Your task to perform on an android device: set default search engine in the chrome app Image 0: 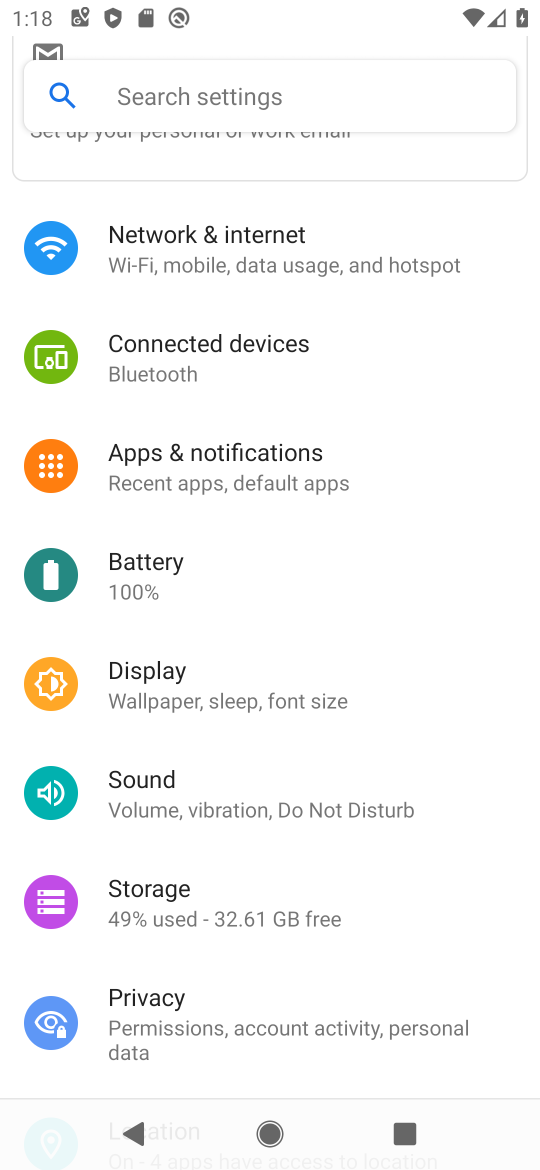
Step 0: press home button
Your task to perform on an android device: set default search engine in the chrome app Image 1: 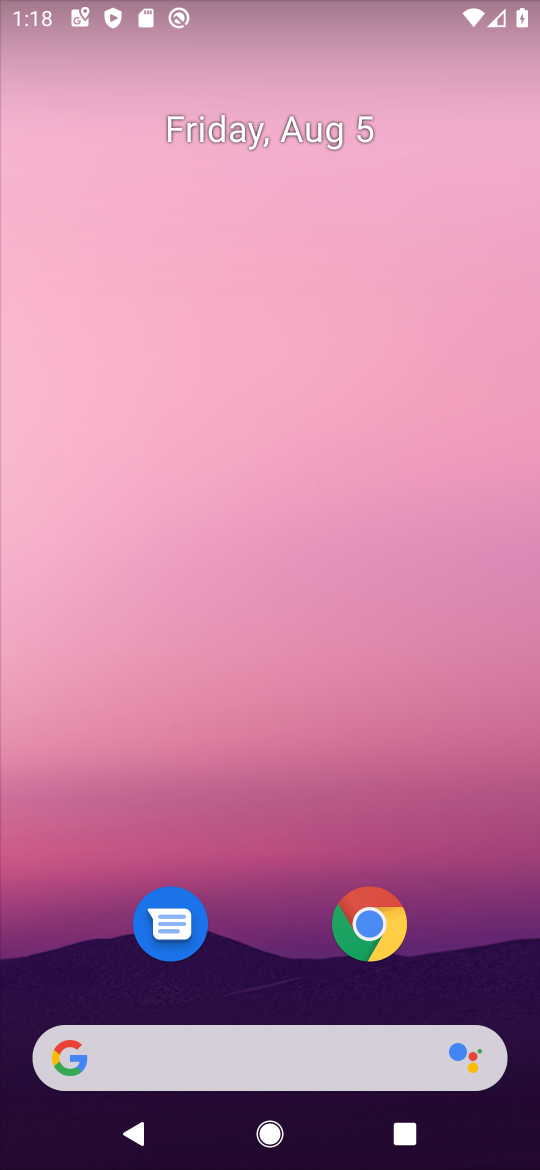
Step 1: click (373, 922)
Your task to perform on an android device: set default search engine in the chrome app Image 2: 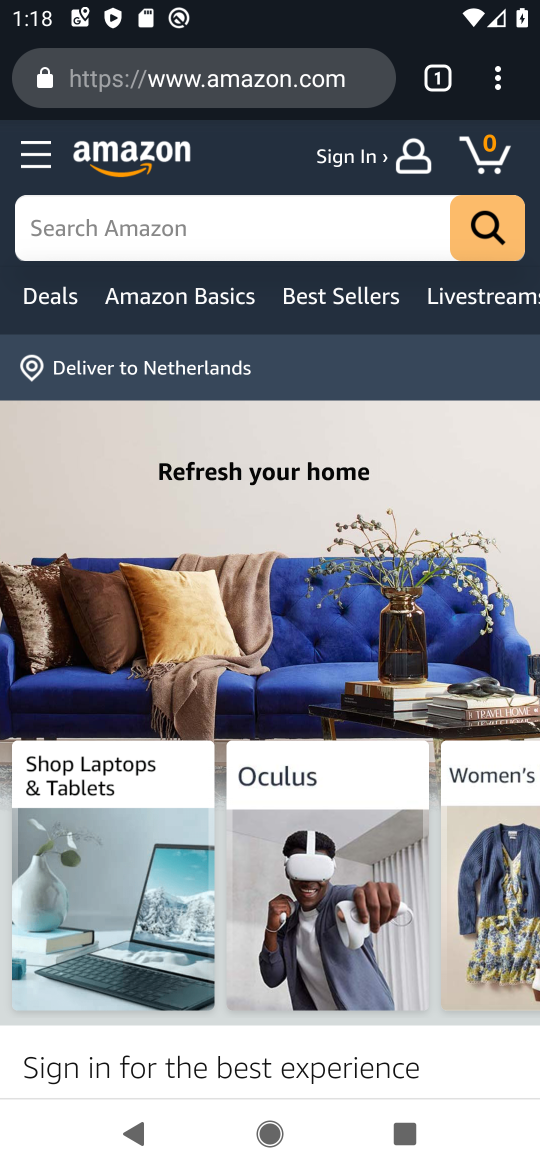
Step 2: click (507, 83)
Your task to perform on an android device: set default search engine in the chrome app Image 3: 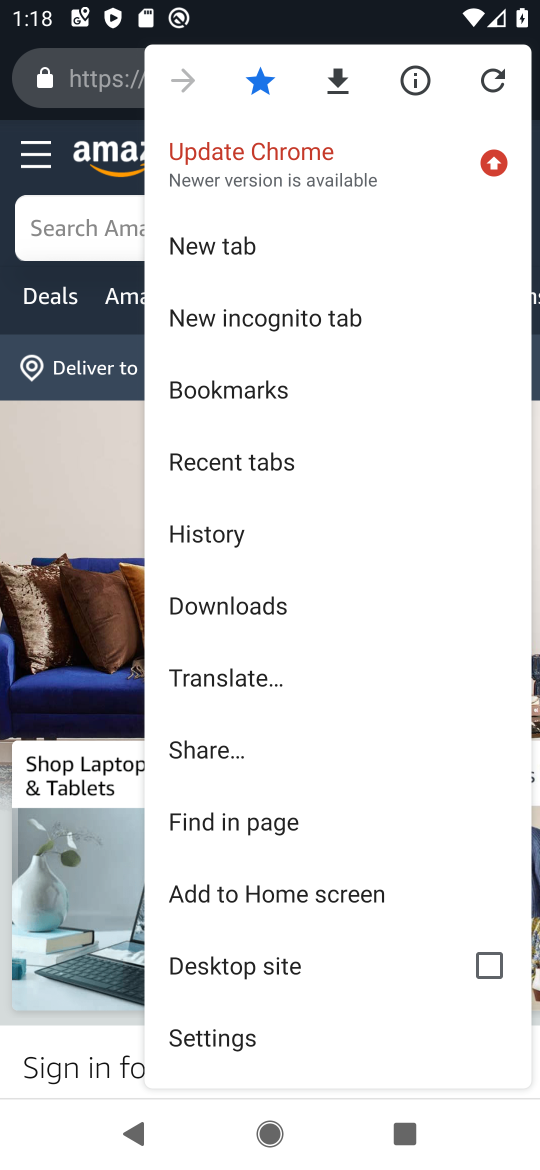
Step 3: click (229, 1045)
Your task to perform on an android device: set default search engine in the chrome app Image 4: 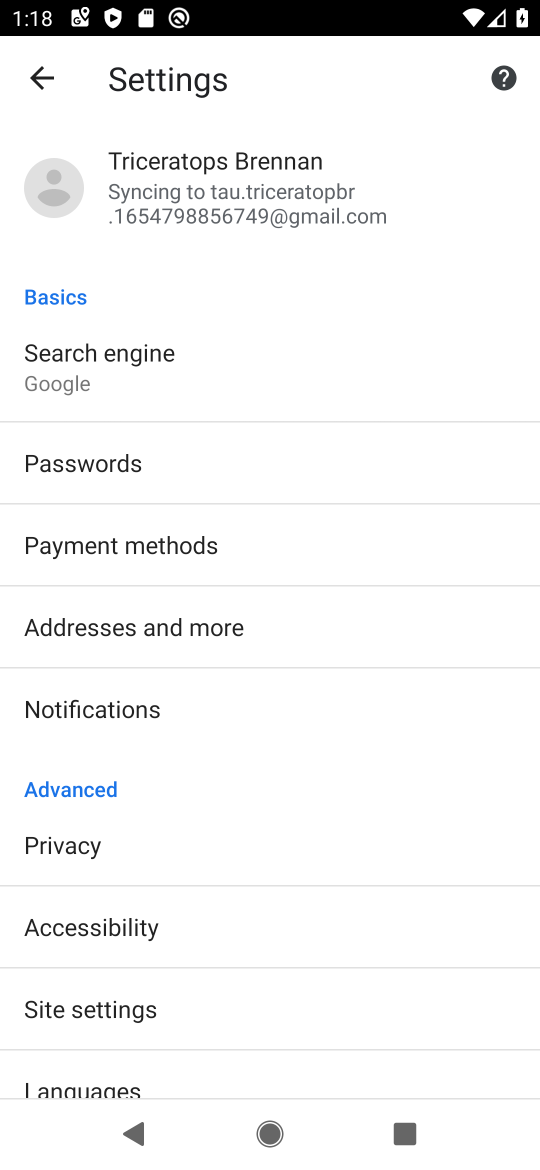
Step 4: click (127, 375)
Your task to perform on an android device: set default search engine in the chrome app Image 5: 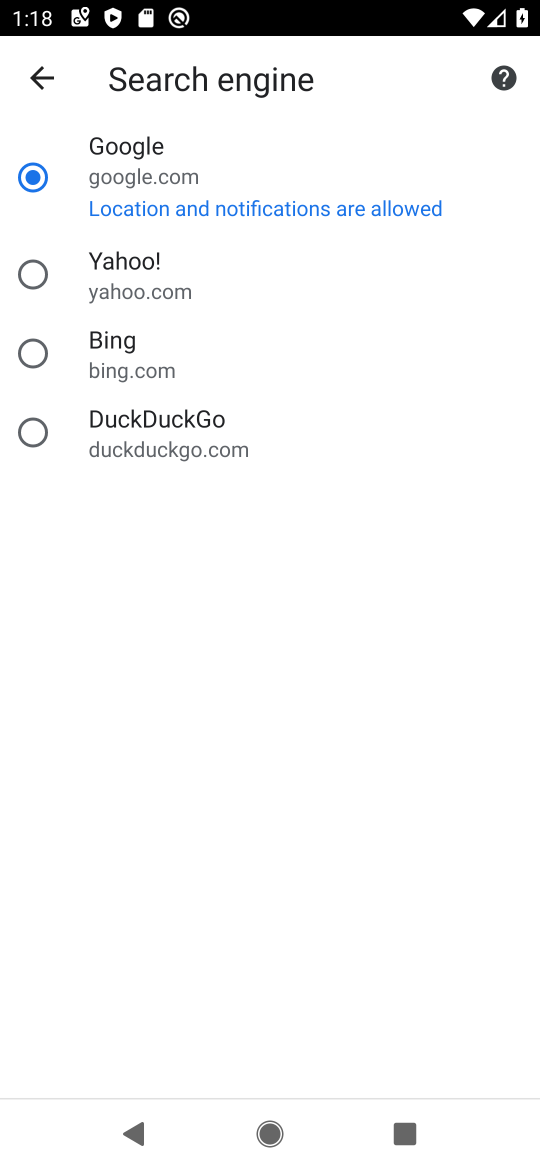
Step 5: click (37, 178)
Your task to perform on an android device: set default search engine in the chrome app Image 6: 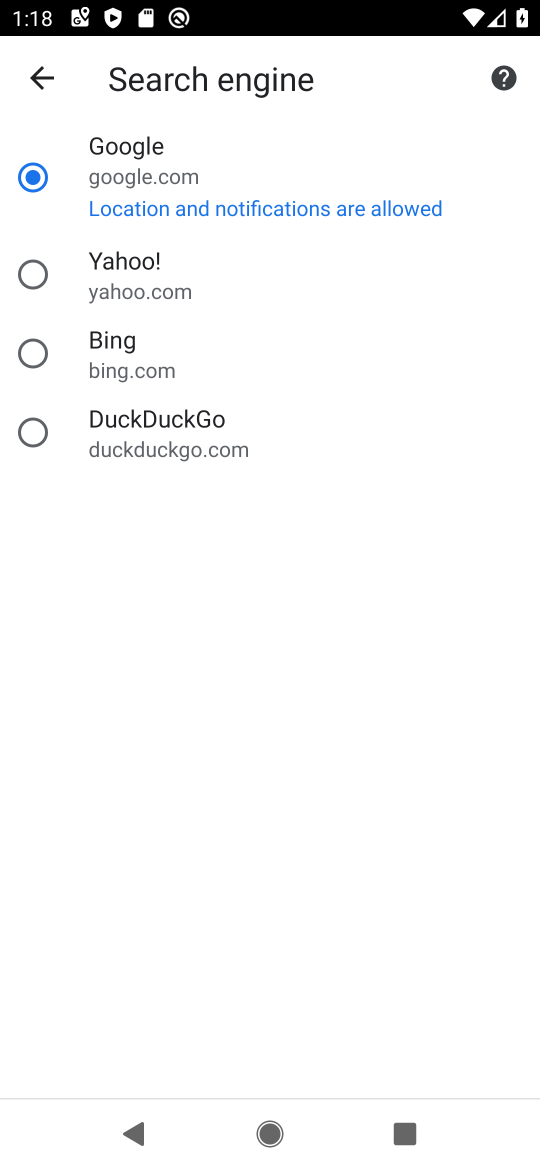
Step 6: task complete